Your task to perform on an android device: turn off sleep mode Image 0: 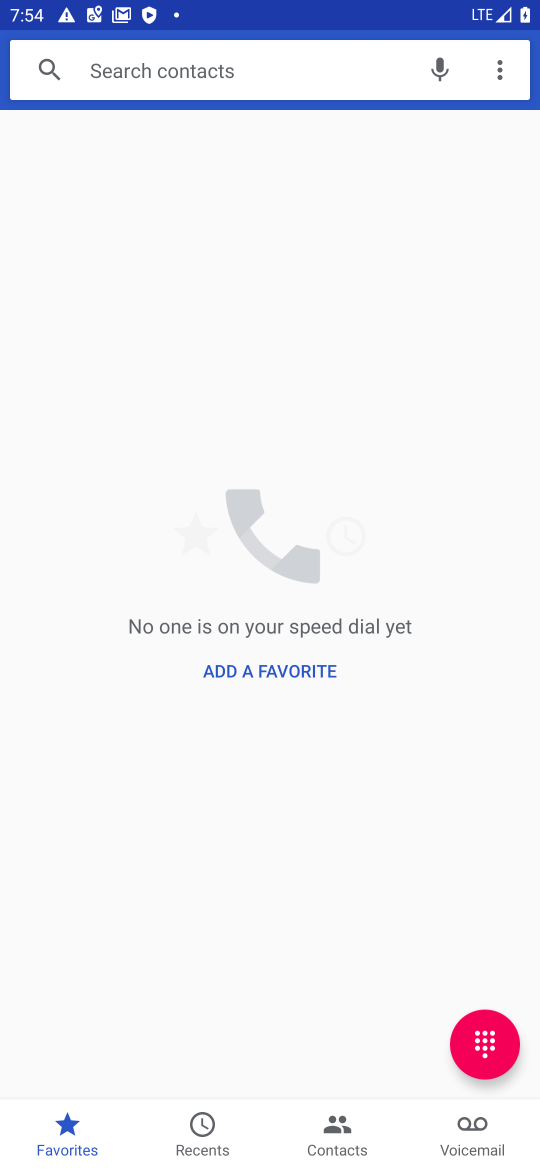
Step 0: press home button
Your task to perform on an android device: turn off sleep mode Image 1: 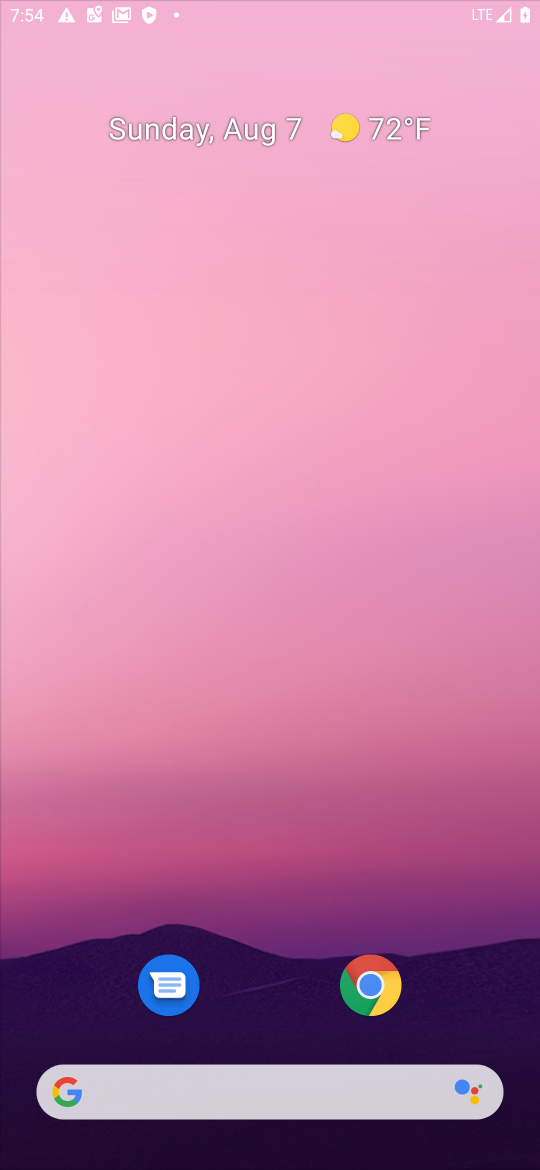
Step 1: drag from (178, 760) to (249, 134)
Your task to perform on an android device: turn off sleep mode Image 2: 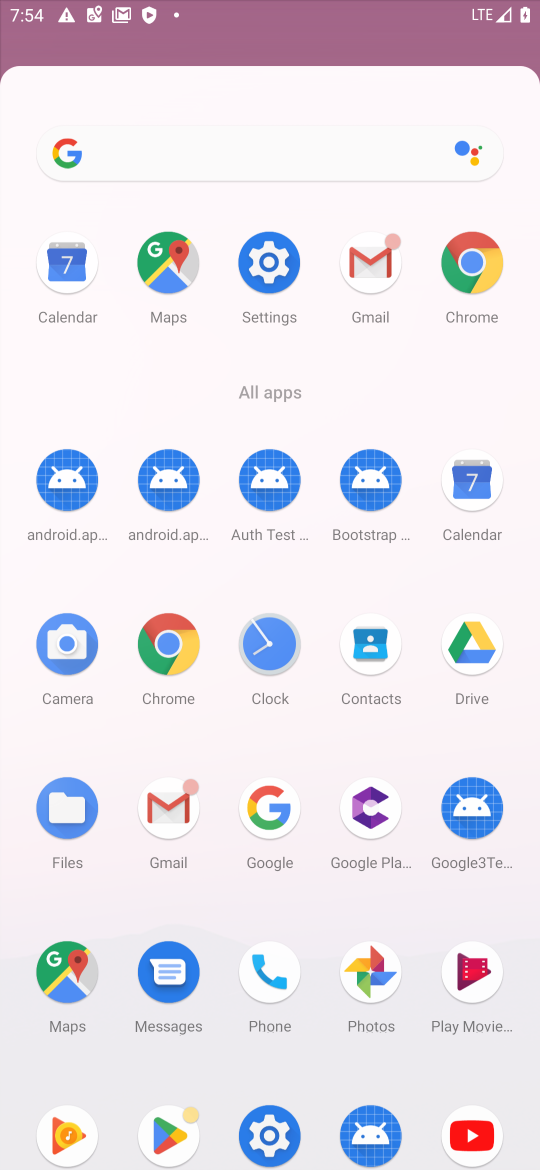
Step 2: drag from (313, 2) to (333, 942)
Your task to perform on an android device: turn off sleep mode Image 3: 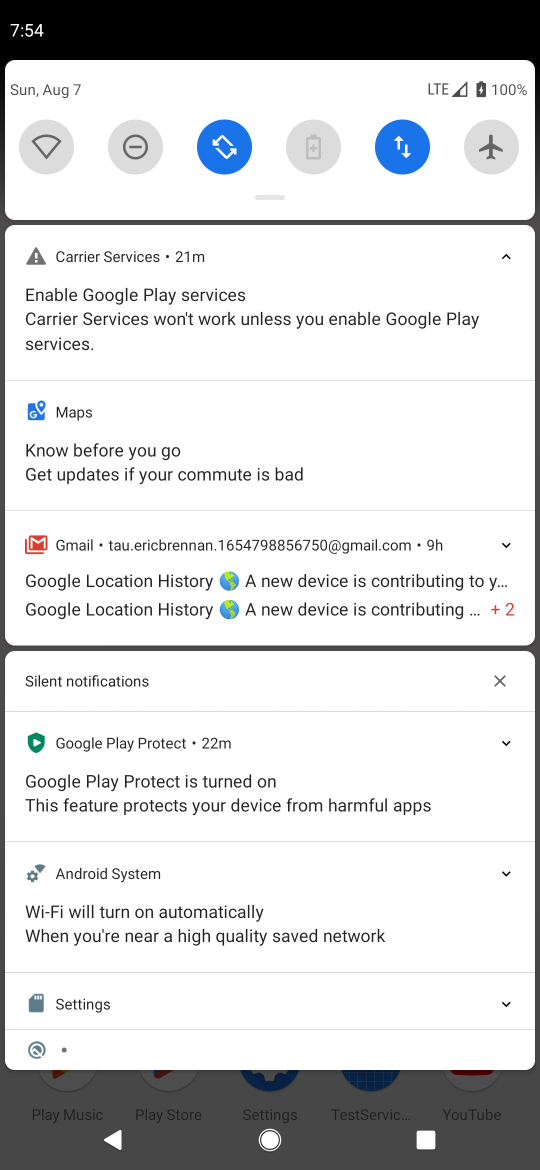
Step 3: drag from (266, 177) to (243, 891)
Your task to perform on an android device: turn off sleep mode Image 4: 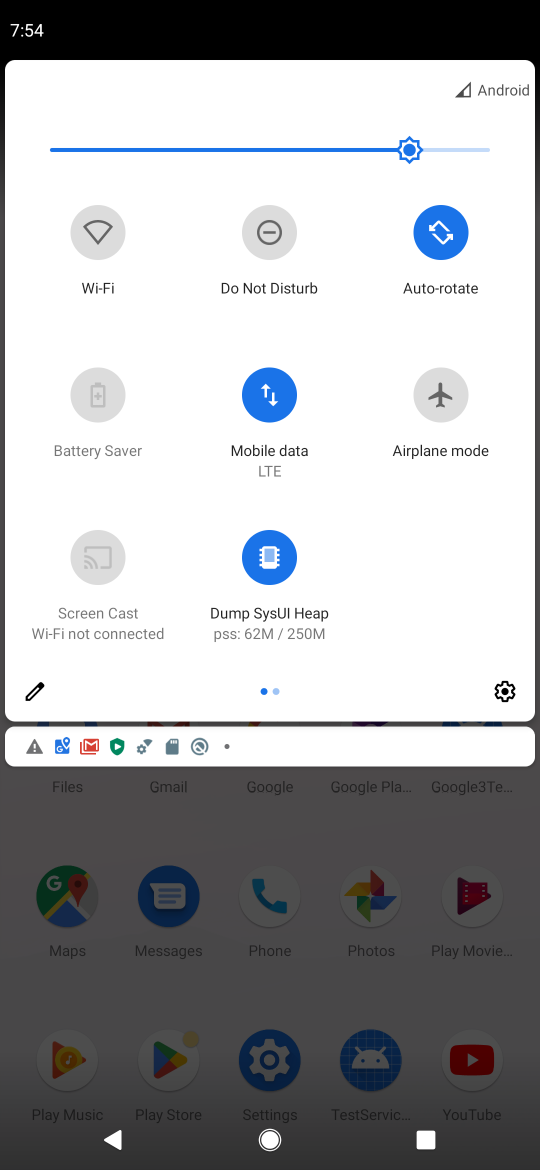
Step 4: drag from (149, 1059) to (242, 297)
Your task to perform on an android device: turn off sleep mode Image 5: 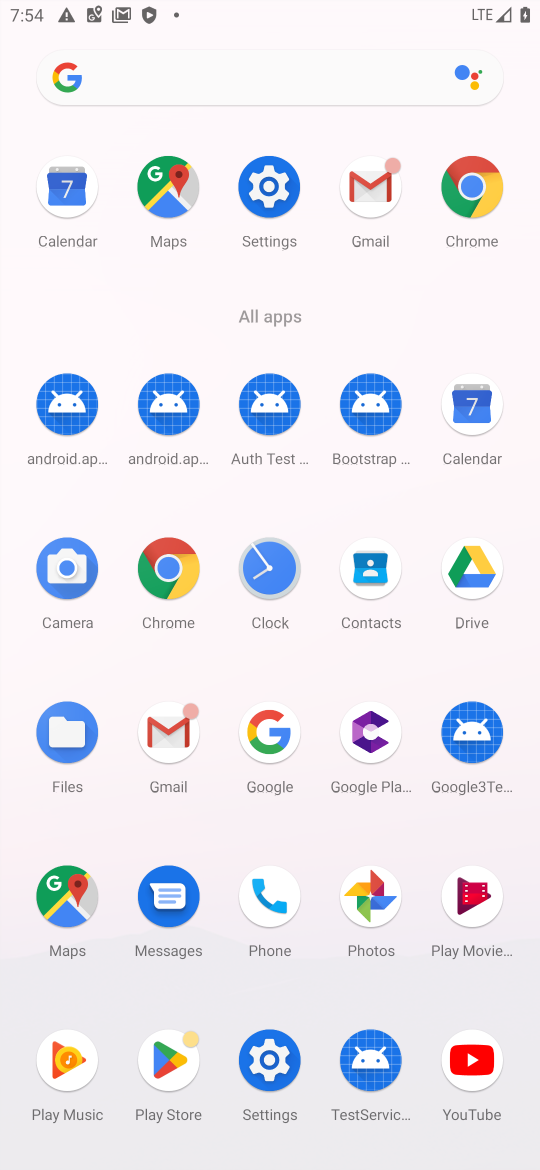
Step 5: click (286, 1048)
Your task to perform on an android device: turn off sleep mode Image 6: 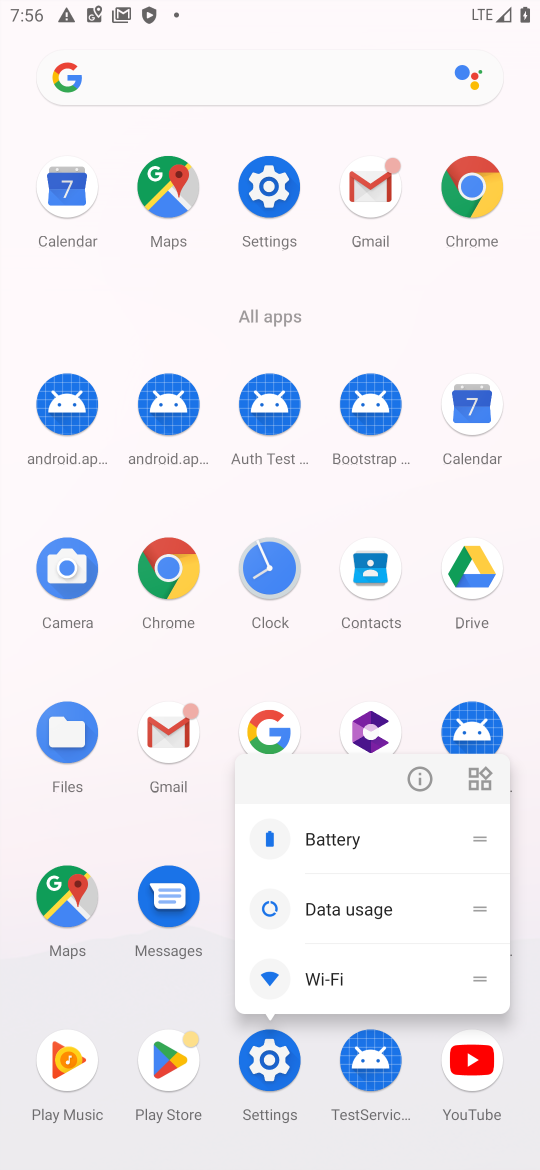
Step 6: click (286, 1048)
Your task to perform on an android device: turn off sleep mode Image 7: 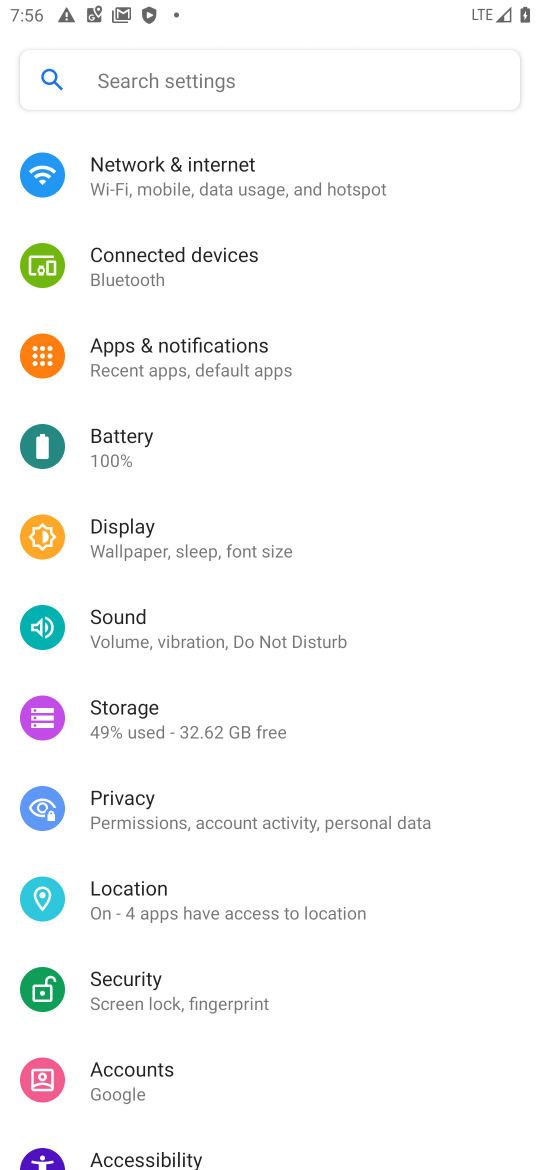
Step 7: click (256, 1056)
Your task to perform on an android device: turn off sleep mode Image 8: 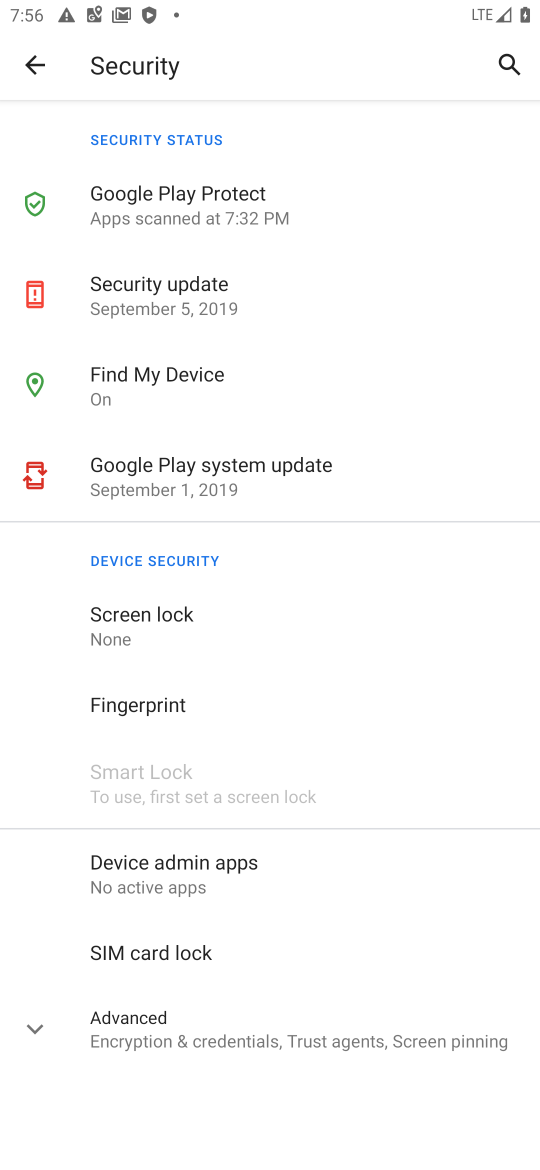
Step 8: task complete